Your task to perform on an android device: Go to ESPN.com Image 0: 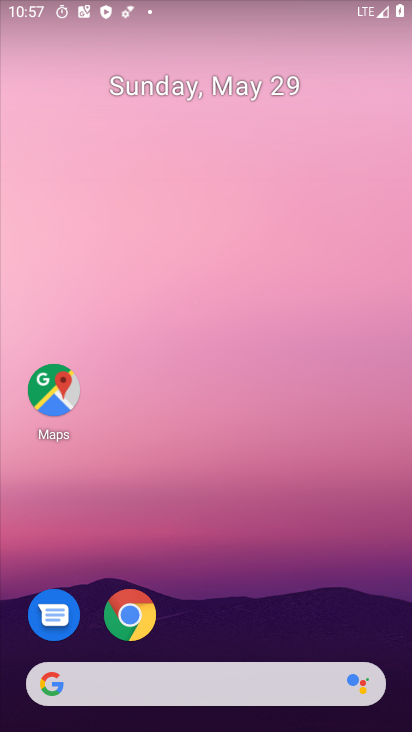
Step 0: drag from (379, 612) to (374, 200)
Your task to perform on an android device: Go to ESPN.com Image 1: 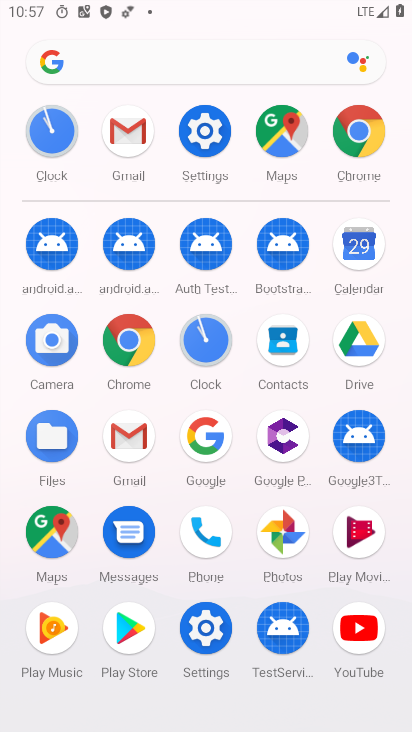
Step 1: click (143, 344)
Your task to perform on an android device: Go to ESPN.com Image 2: 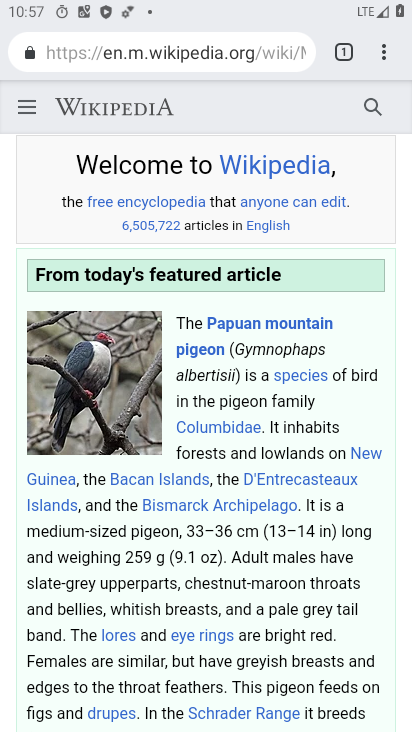
Step 2: press back button
Your task to perform on an android device: Go to ESPN.com Image 3: 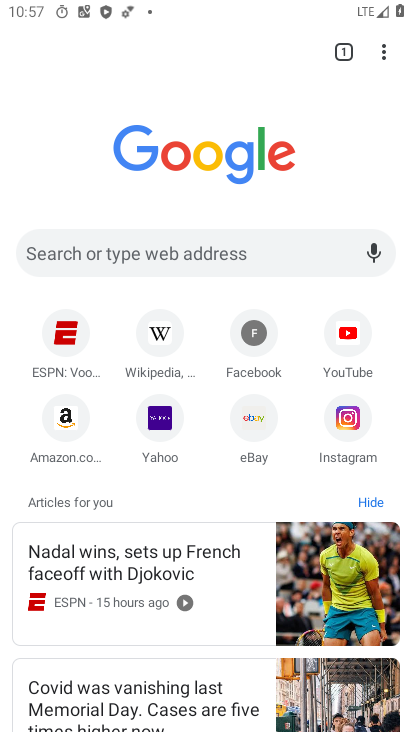
Step 3: click (28, 361)
Your task to perform on an android device: Go to ESPN.com Image 4: 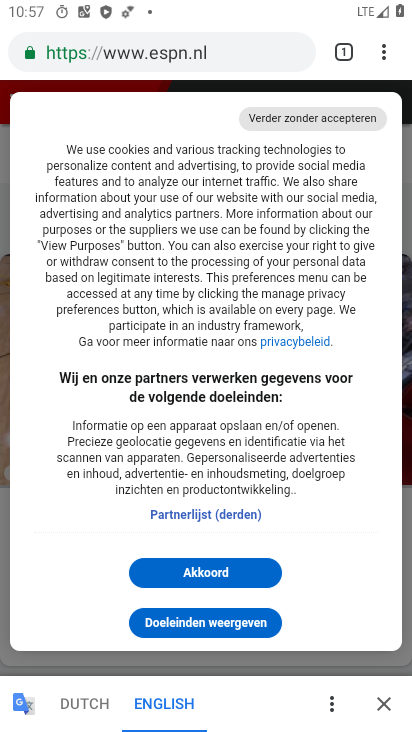
Step 4: task complete